Your task to perform on an android device: Go to Android settings Image 0: 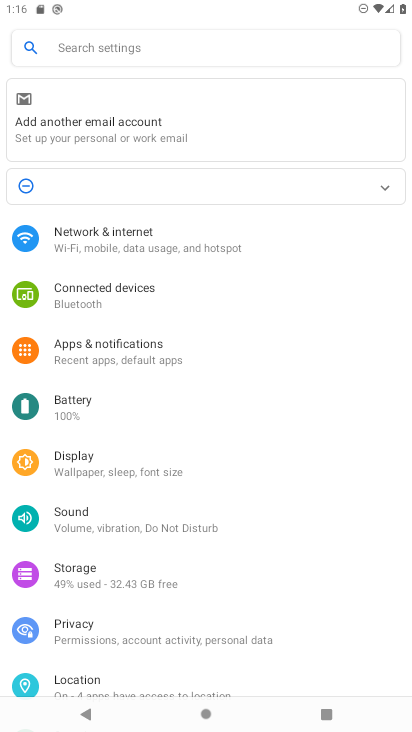
Step 0: drag from (171, 663) to (182, 346)
Your task to perform on an android device: Go to Android settings Image 1: 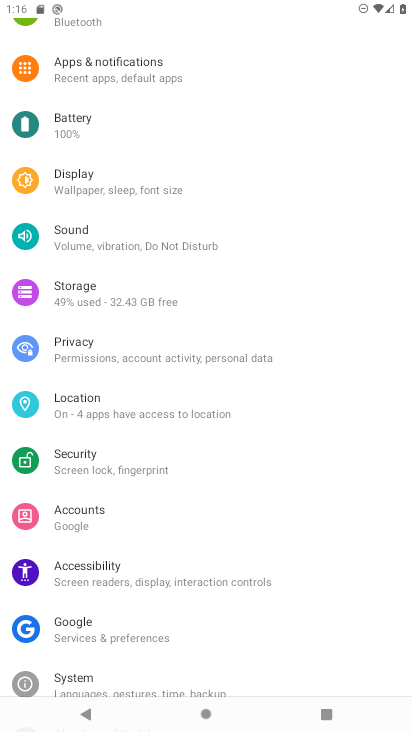
Step 1: task complete